Your task to perform on an android device: Open CNN.com Image 0: 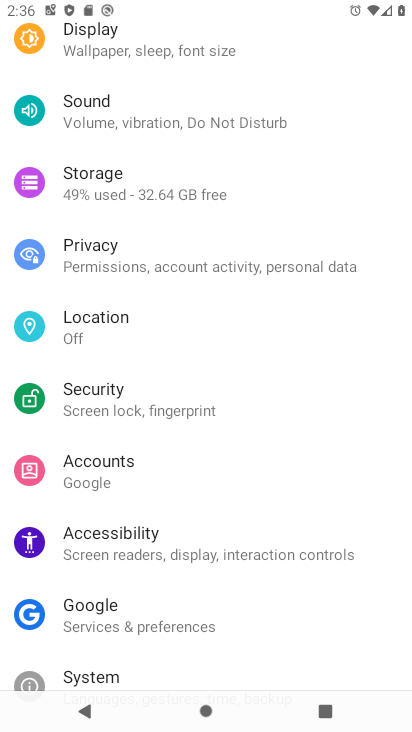
Step 0: press home button
Your task to perform on an android device: Open CNN.com Image 1: 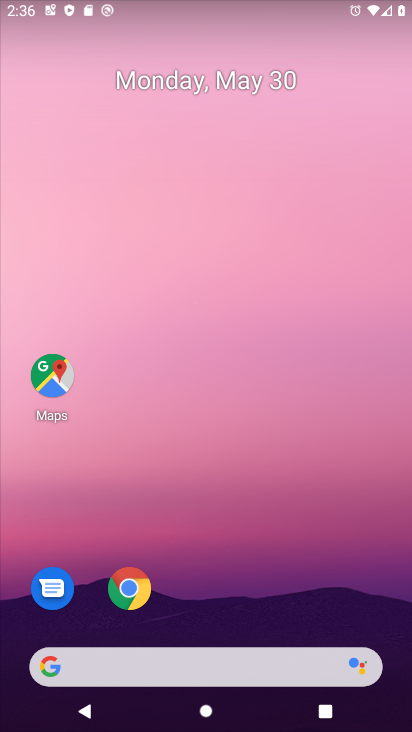
Step 1: click (145, 579)
Your task to perform on an android device: Open CNN.com Image 2: 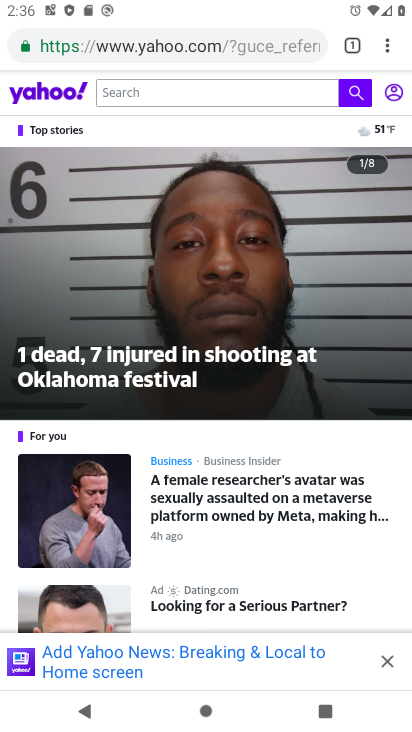
Step 2: click (203, 37)
Your task to perform on an android device: Open CNN.com Image 3: 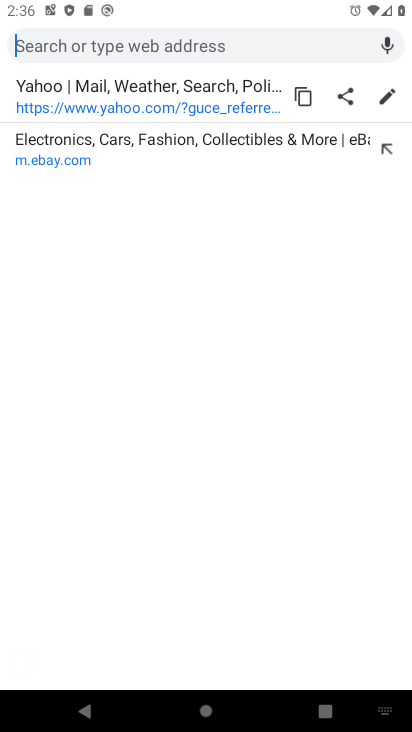
Step 3: type "cnn"
Your task to perform on an android device: Open CNN.com Image 4: 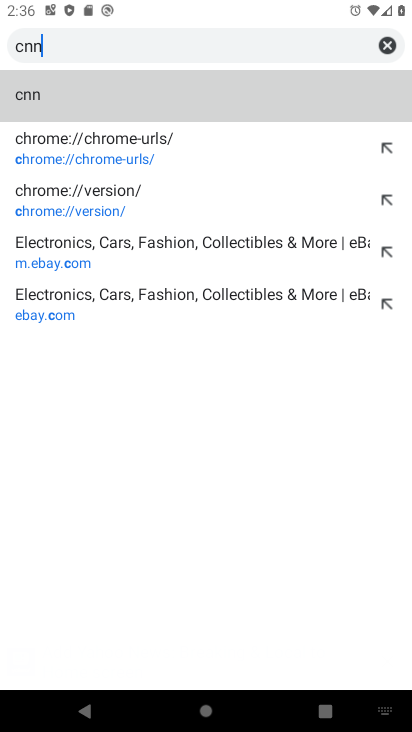
Step 4: type ""
Your task to perform on an android device: Open CNN.com Image 5: 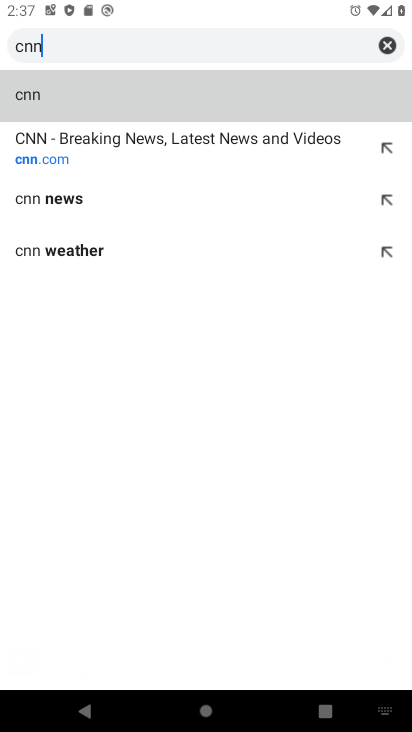
Step 5: click (181, 137)
Your task to perform on an android device: Open CNN.com Image 6: 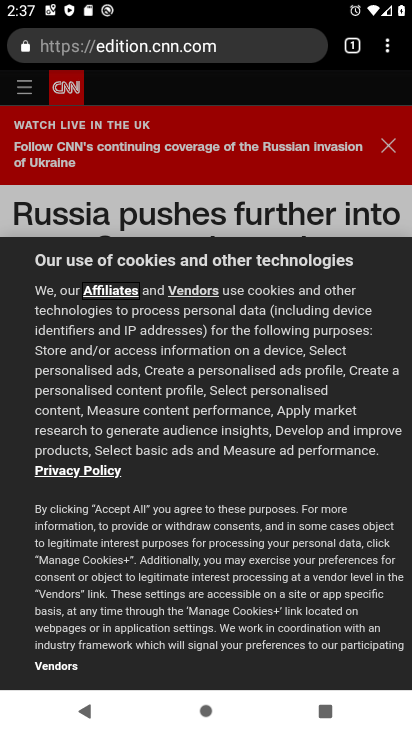
Step 6: task complete